Your task to perform on an android device: delete the emails in spam in the gmail app Image 0: 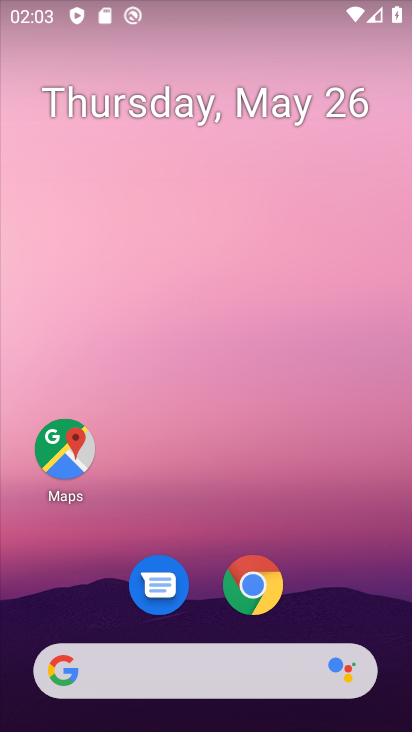
Step 0: drag from (212, 525) to (269, 65)
Your task to perform on an android device: delete the emails in spam in the gmail app Image 1: 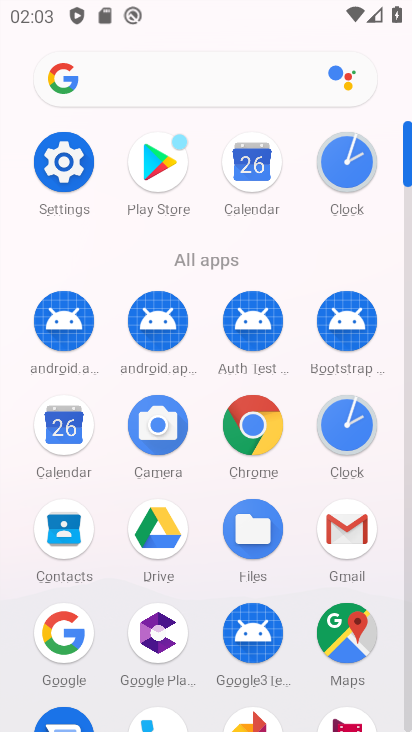
Step 1: click (346, 523)
Your task to perform on an android device: delete the emails in spam in the gmail app Image 2: 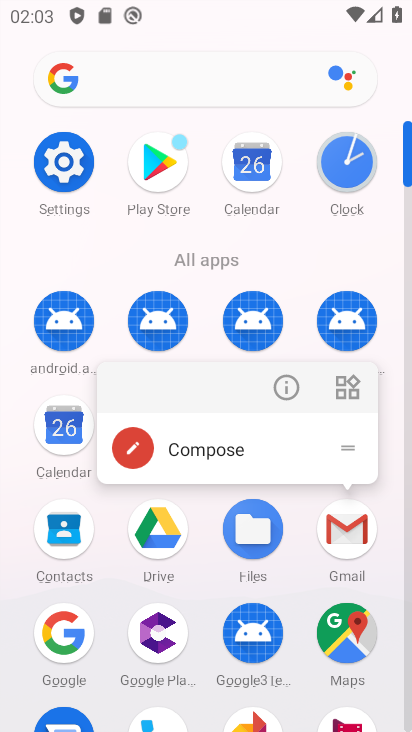
Step 2: click (346, 523)
Your task to perform on an android device: delete the emails in spam in the gmail app Image 3: 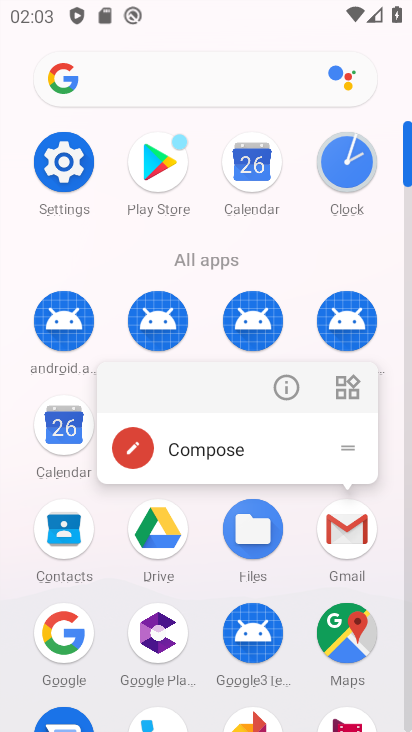
Step 3: click (346, 522)
Your task to perform on an android device: delete the emails in spam in the gmail app Image 4: 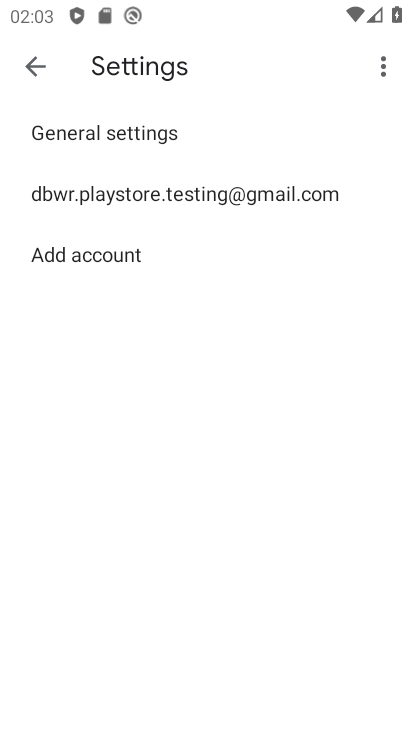
Step 4: click (40, 63)
Your task to perform on an android device: delete the emails in spam in the gmail app Image 5: 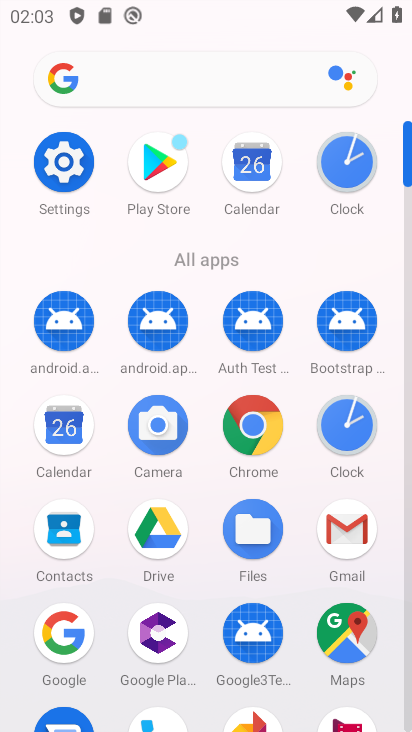
Step 5: click (333, 530)
Your task to perform on an android device: delete the emails in spam in the gmail app Image 6: 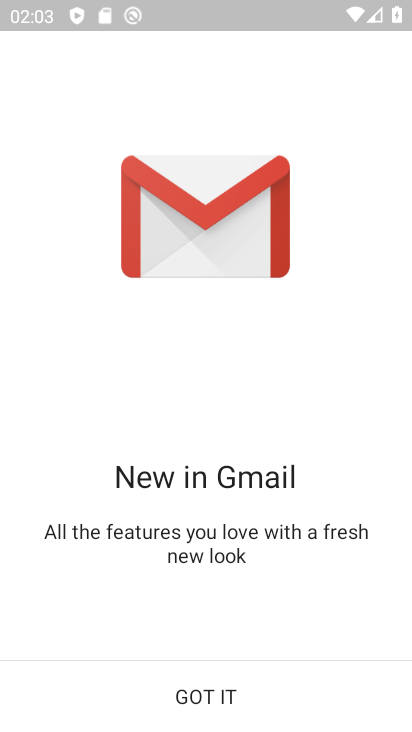
Step 6: click (267, 689)
Your task to perform on an android device: delete the emails in spam in the gmail app Image 7: 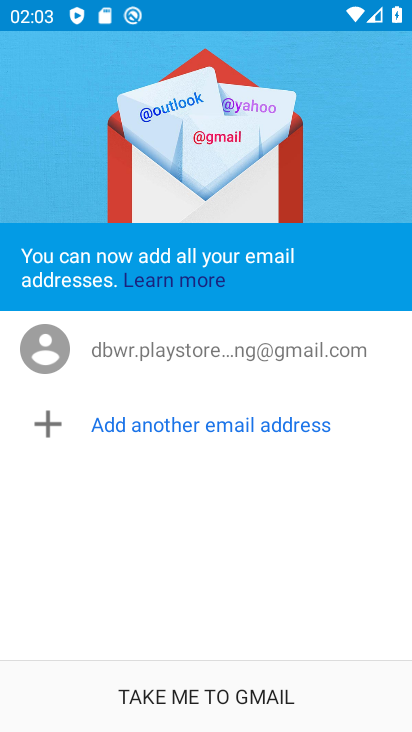
Step 7: click (267, 687)
Your task to perform on an android device: delete the emails in spam in the gmail app Image 8: 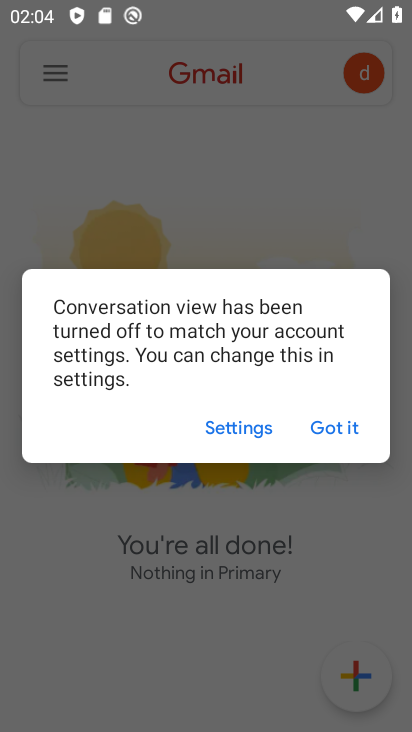
Step 8: click (342, 427)
Your task to perform on an android device: delete the emails in spam in the gmail app Image 9: 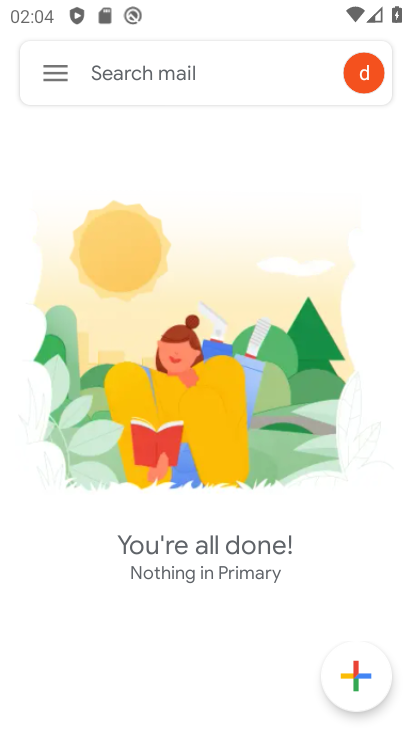
Step 9: click (53, 74)
Your task to perform on an android device: delete the emails in spam in the gmail app Image 10: 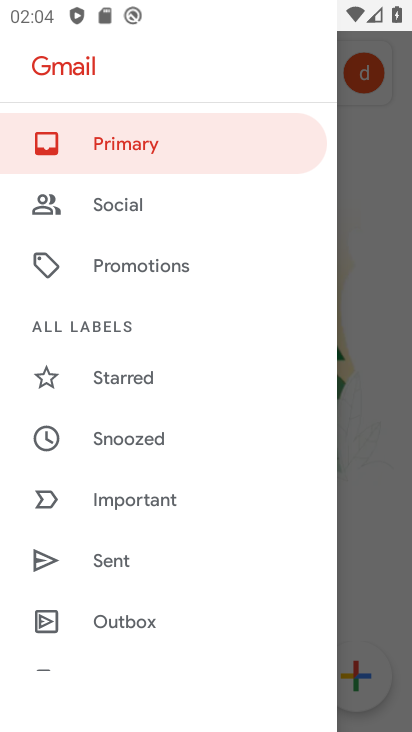
Step 10: drag from (183, 528) to (217, 144)
Your task to perform on an android device: delete the emails in spam in the gmail app Image 11: 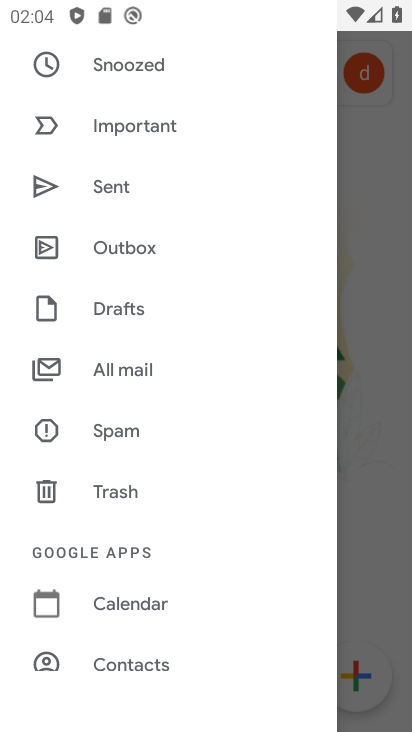
Step 11: click (146, 436)
Your task to perform on an android device: delete the emails in spam in the gmail app Image 12: 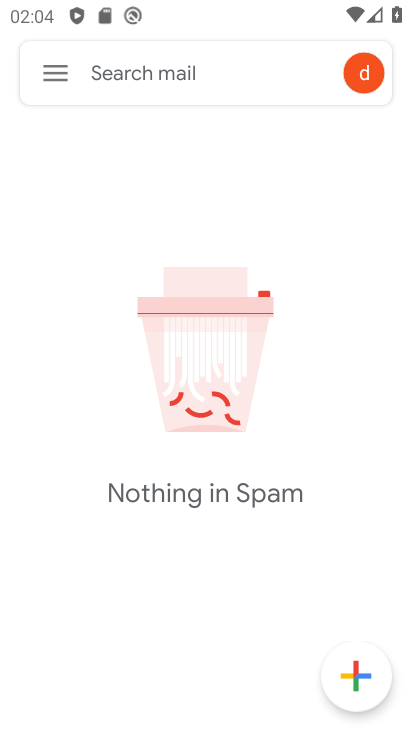
Step 12: task complete